Your task to perform on an android device: see tabs open on other devices in the chrome app Image 0: 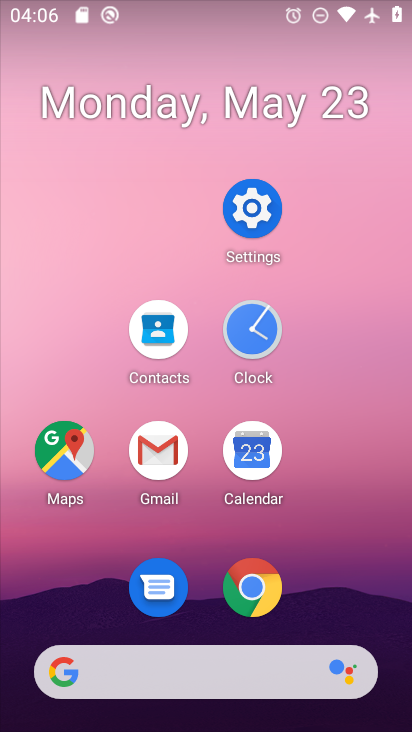
Step 0: click (263, 599)
Your task to perform on an android device: see tabs open on other devices in the chrome app Image 1: 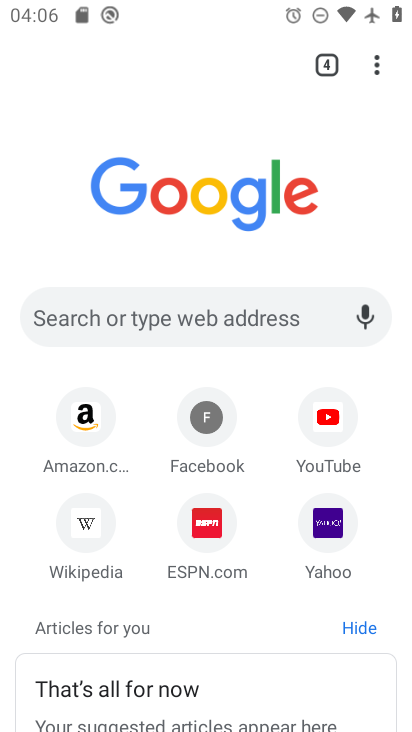
Step 1: click (326, 67)
Your task to perform on an android device: see tabs open on other devices in the chrome app Image 2: 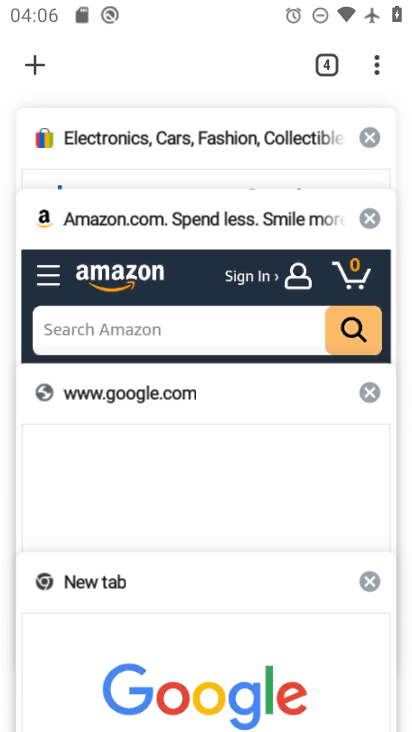
Step 2: click (31, 64)
Your task to perform on an android device: see tabs open on other devices in the chrome app Image 3: 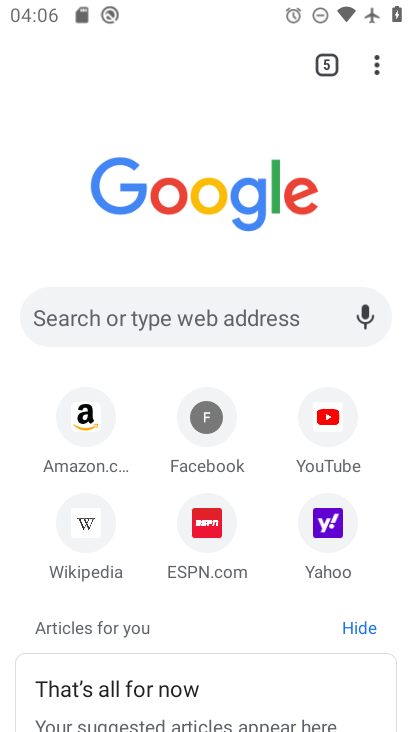
Step 3: click (379, 66)
Your task to perform on an android device: see tabs open on other devices in the chrome app Image 4: 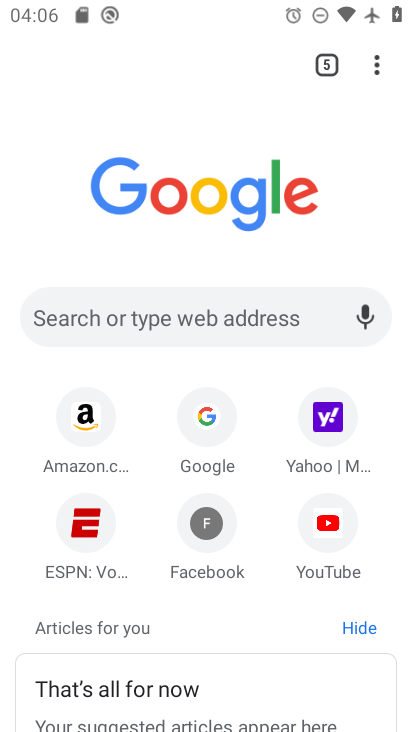
Step 4: click (389, 67)
Your task to perform on an android device: see tabs open on other devices in the chrome app Image 5: 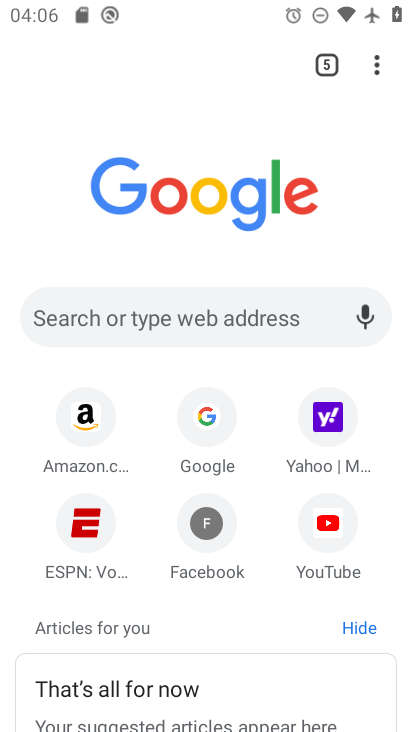
Step 5: click (373, 91)
Your task to perform on an android device: see tabs open on other devices in the chrome app Image 6: 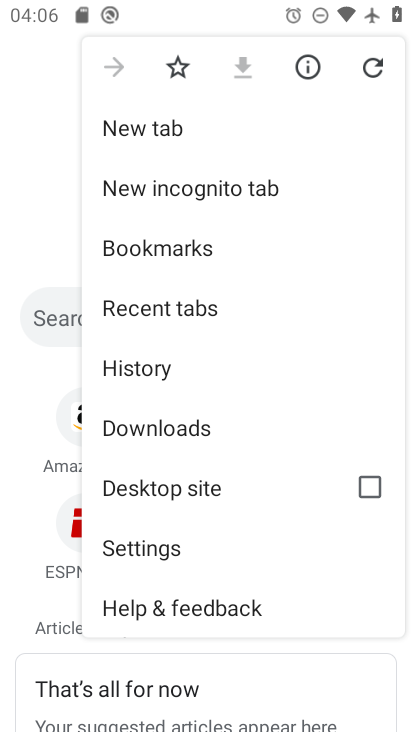
Step 6: click (208, 302)
Your task to perform on an android device: see tabs open on other devices in the chrome app Image 7: 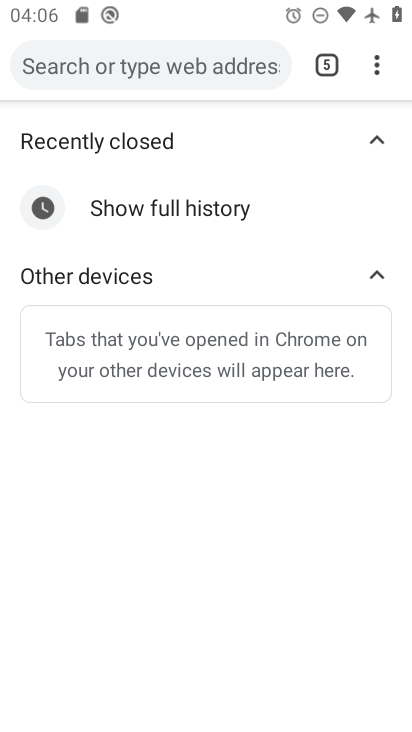
Step 7: task complete